Your task to perform on an android device: Search for pizza restaurants on Maps Image 0: 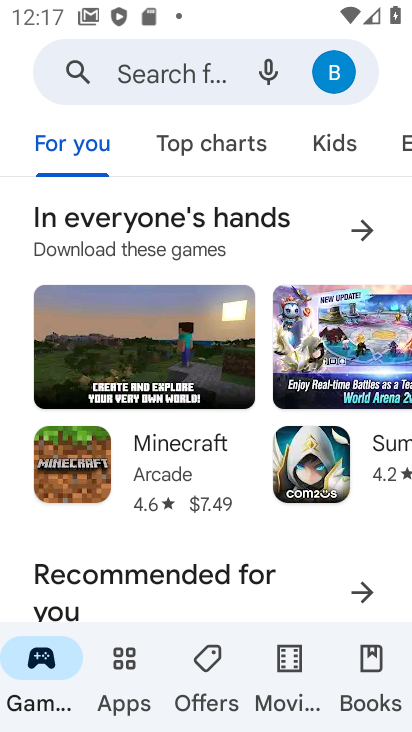
Step 0: press home button
Your task to perform on an android device: Search for pizza restaurants on Maps Image 1: 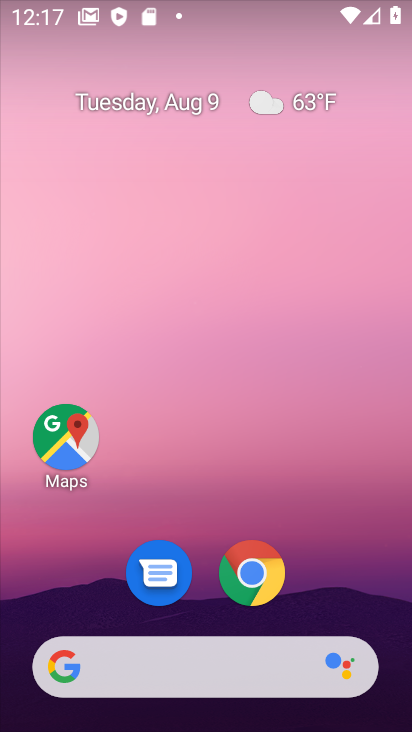
Step 1: click (64, 439)
Your task to perform on an android device: Search for pizza restaurants on Maps Image 2: 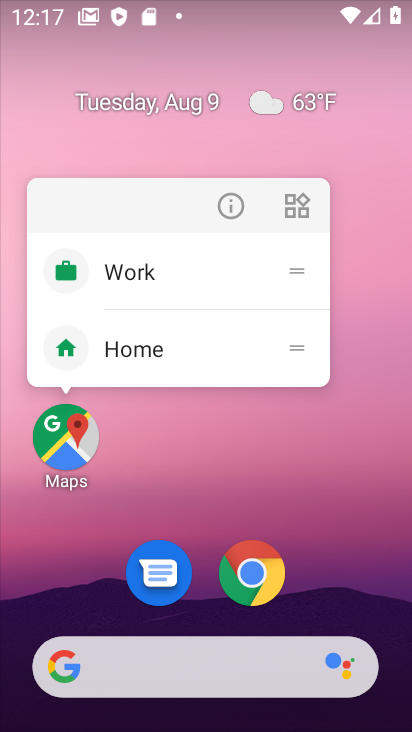
Step 2: click (66, 448)
Your task to perform on an android device: Search for pizza restaurants on Maps Image 3: 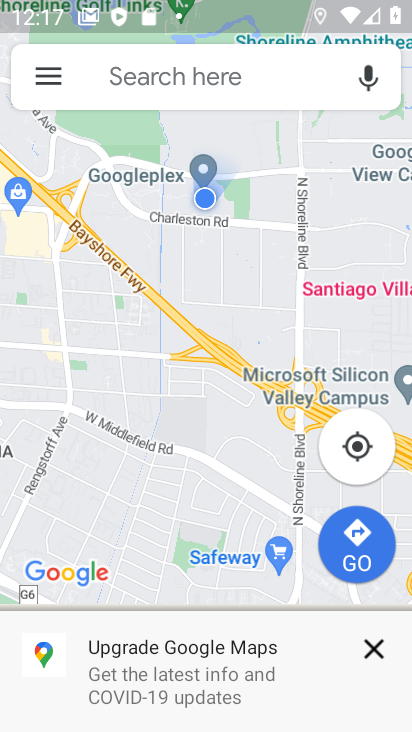
Step 3: click (125, 74)
Your task to perform on an android device: Search for pizza restaurants on Maps Image 4: 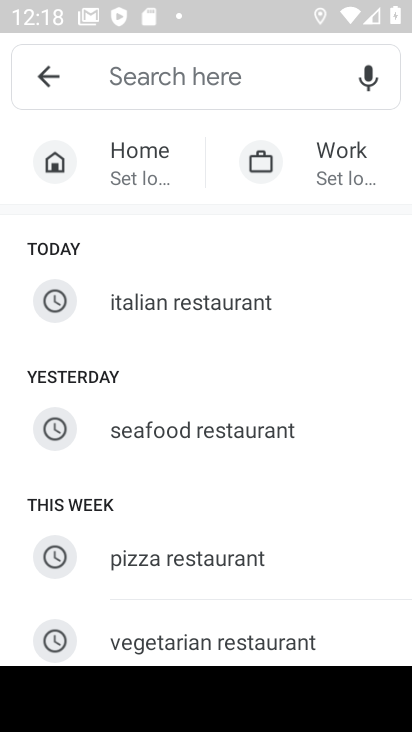
Step 4: click (188, 555)
Your task to perform on an android device: Search for pizza restaurants on Maps Image 5: 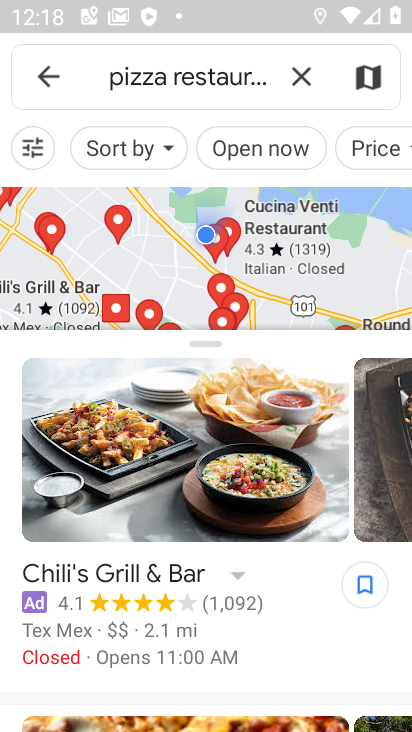
Step 5: task complete